Your task to perform on an android device: turn on sleep mode Image 0: 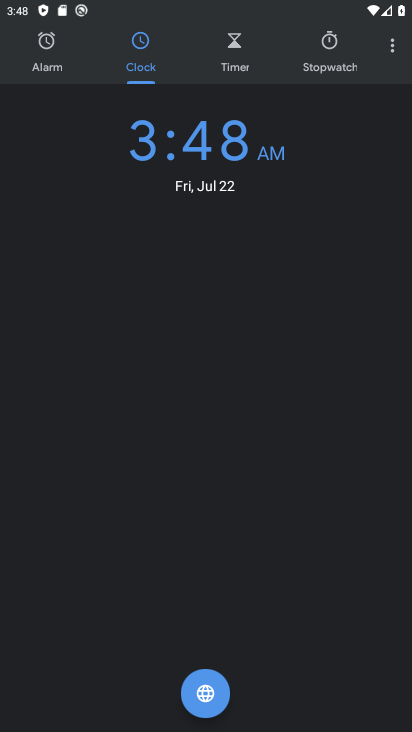
Step 0: press home button
Your task to perform on an android device: turn on sleep mode Image 1: 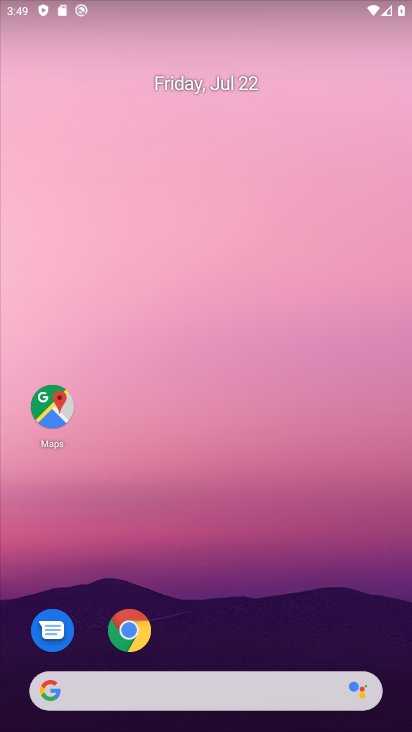
Step 1: drag from (223, 605) to (197, 27)
Your task to perform on an android device: turn on sleep mode Image 2: 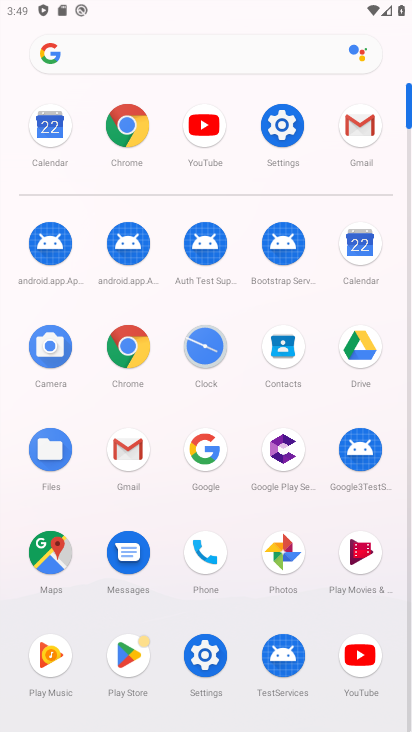
Step 2: click (206, 648)
Your task to perform on an android device: turn on sleep mode Image 3: 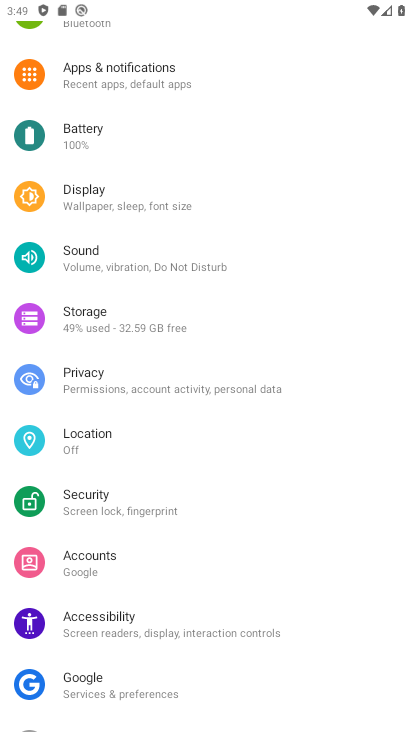
Step 3: drag from (257, 122) to (250, 705)
Your task to perform on an android device: turn on sleep mode Image 4: 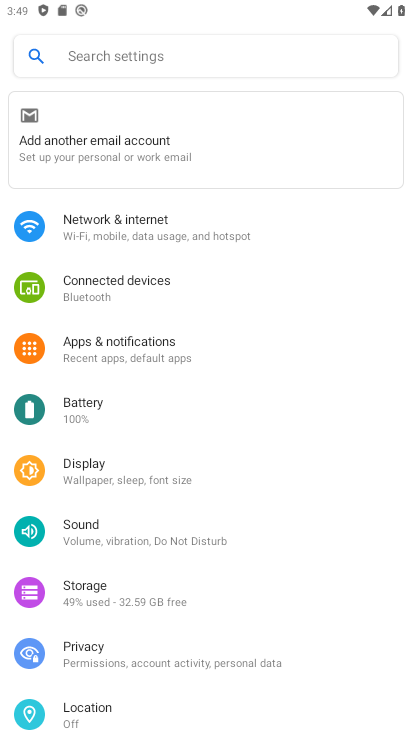
Step 4: click (204, 54)
Your task to perform on an android device: turn on sleep mode Image 5: 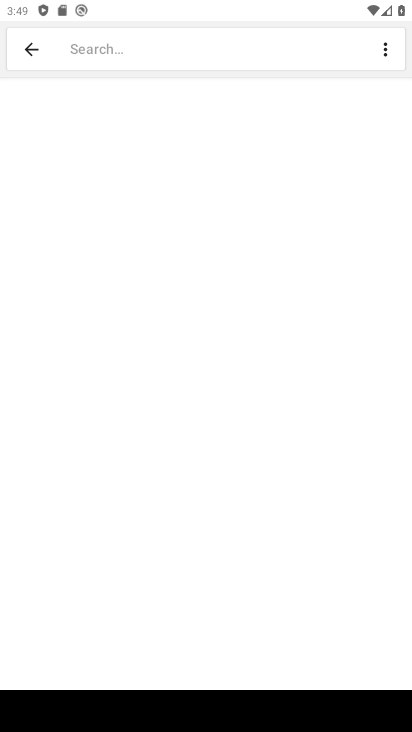
Step 5: type "sleep mode"
Your task to perform on an android device: turn on sleep mode Image 6: 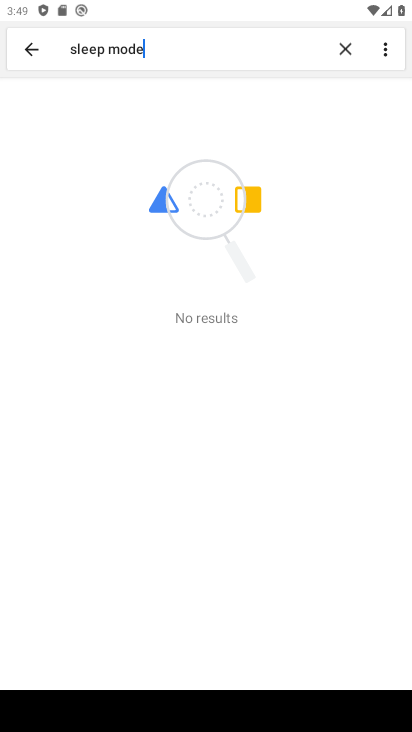
Step 6: task complete